Your task to perform on an android device: Go to Android settings Image 0: 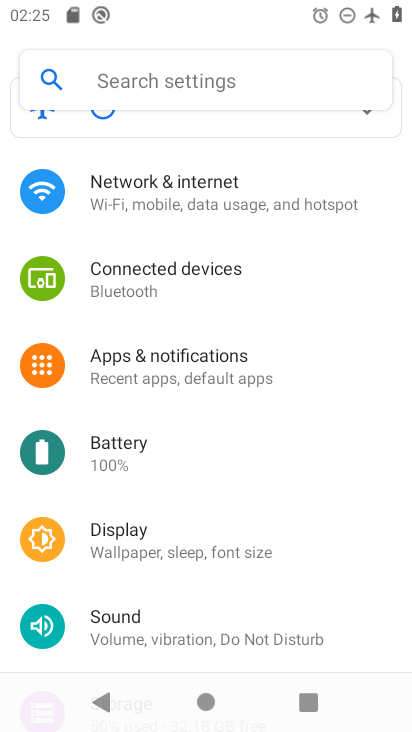
Step 0: task complete